Your task to perform on an android device: show emergency info Image 0: 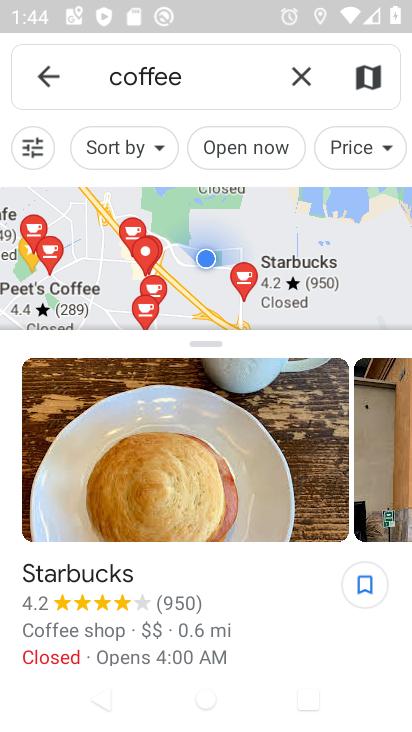
Step 0: press home button
Your task to perform on an android device: show emergency info Image 1: 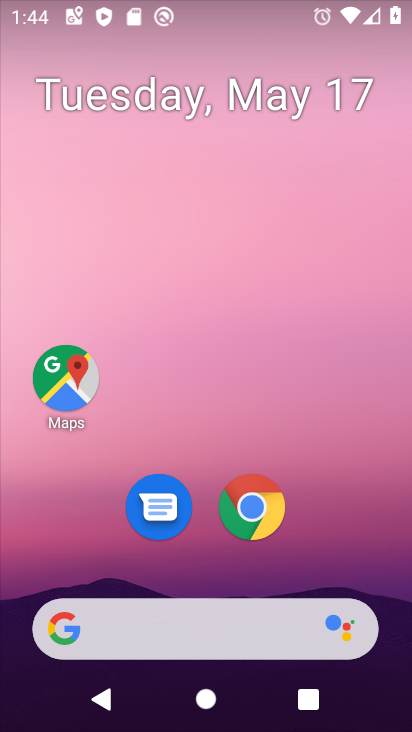
Step 1: drag from (220, 595) to (300, 244)
Your task to perform on an android device: show emergency info Image 2: 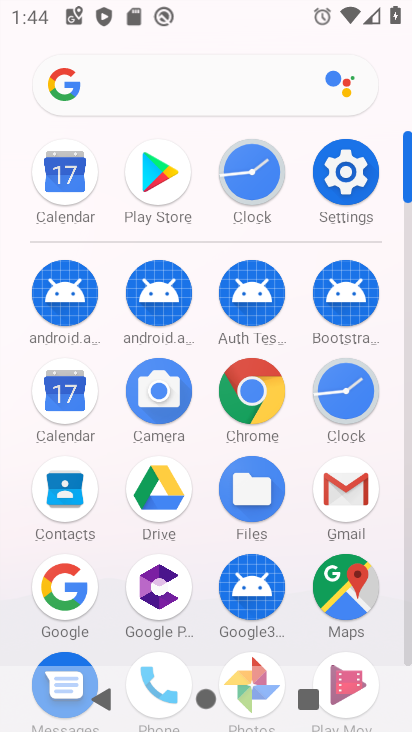
Step 2: click (345, 172)
Your task to perform on an android device: show emergency info Image 3: 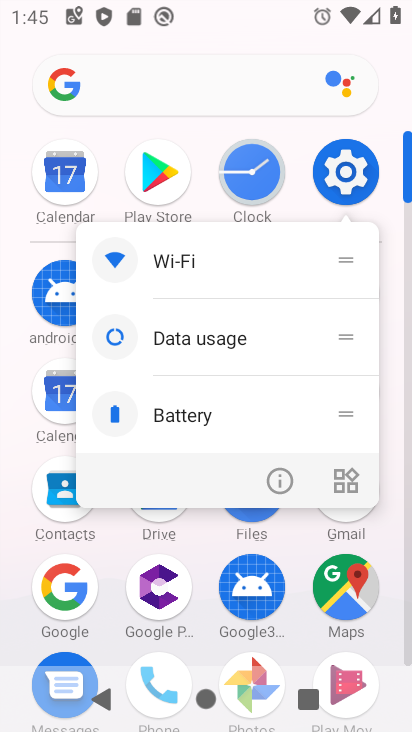
Step 3: click (330, 165)
Your task to perform on an android device: show emergency info Image 4: 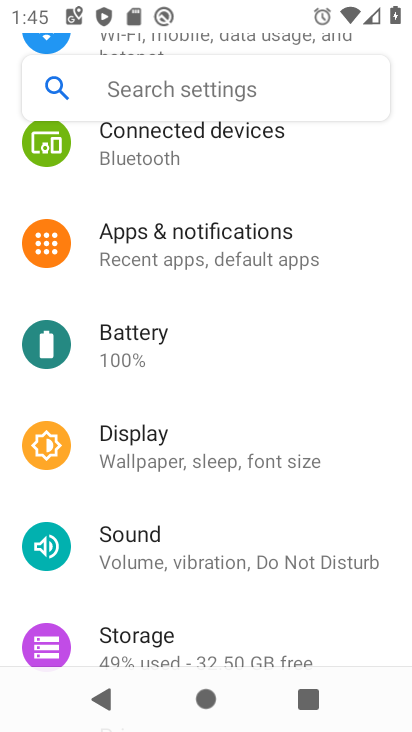
Step 4: drag from (185, 603) to (221, 205)
Your task to perform on an android device: show emergency info Image 5: 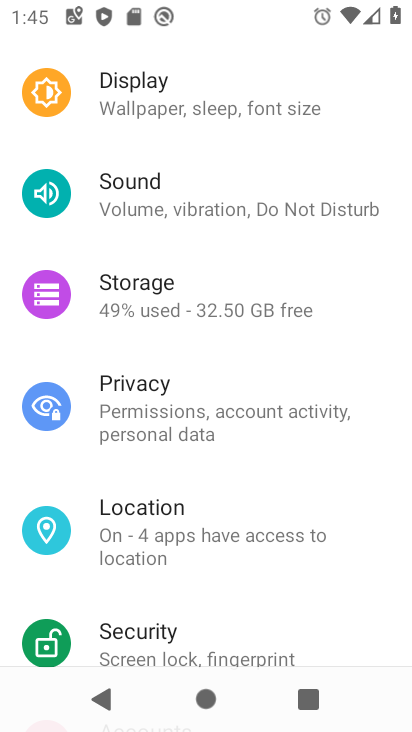
Step 5: drag from (170, 604) to (272, 129)
Your task to perform on an android device: show emergency info Image 6: 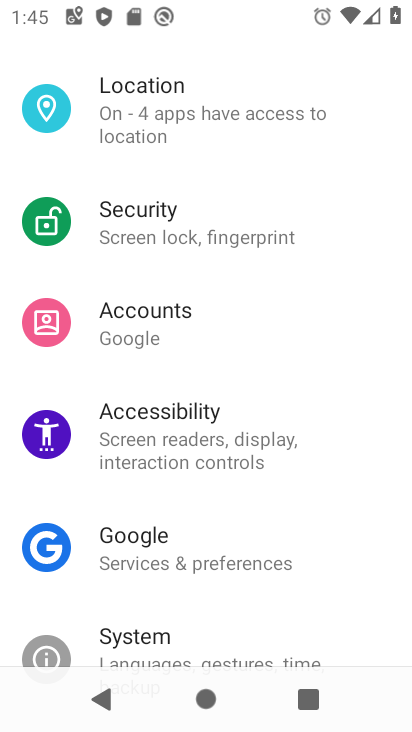
Step 6: drag from (145, 607) to (234, 163)
Your task to perform on an android device: show emergency info Image 7: 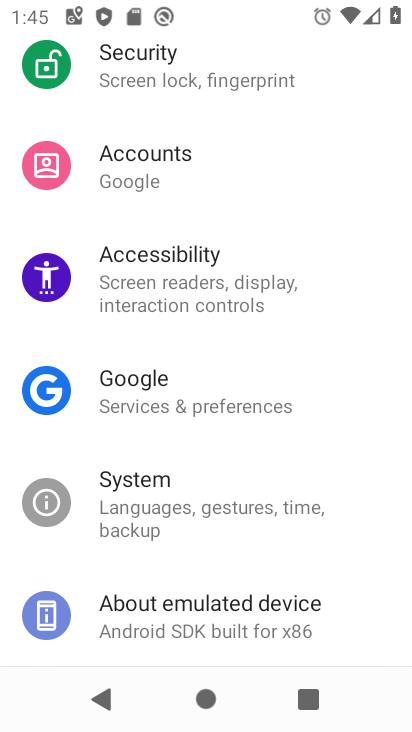
Step 7: click (136, 616)
Your task to perform on an android device: show emergency info Image 8: 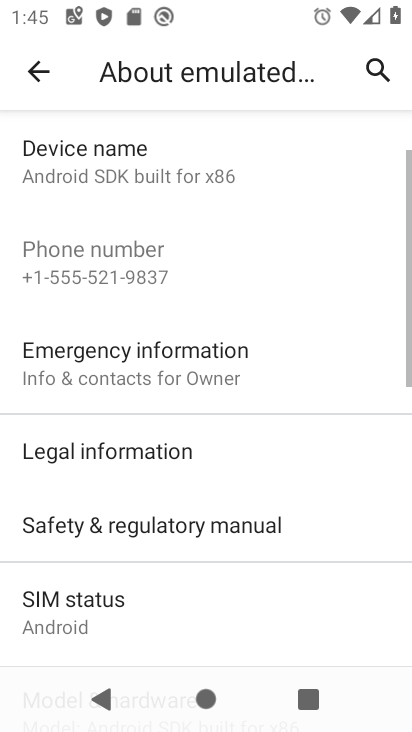
Step 8: click (146, 353)
Your task to perform on an android device: show emergency info Image 9: 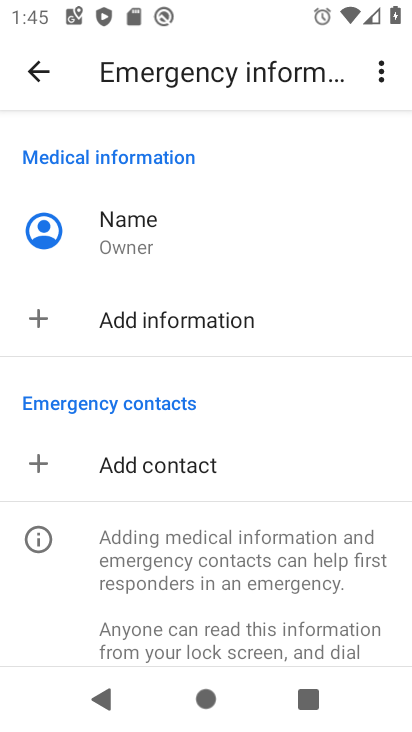
Step 9: task complete